Your task to perform on an android device: Open accessibility settings Image 0: 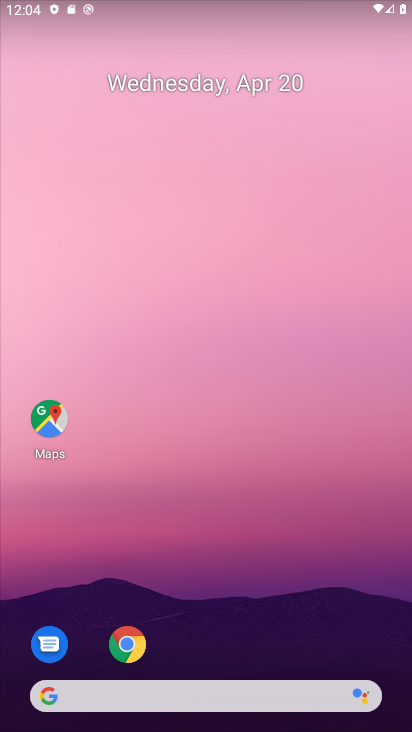
Step 0: drag from (261, 648) to (286, 0)
Your task to perform on an android device: Open accessibility settings Image 1: 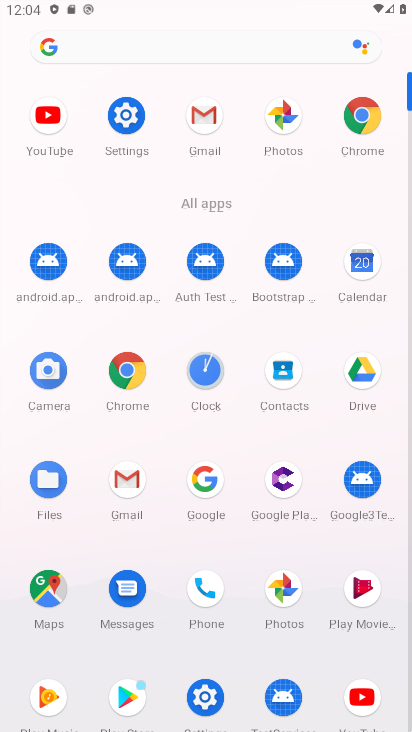
Step 1: click (131, 116)
Your task to perform on an android device: Open accessibility settings Image 2: 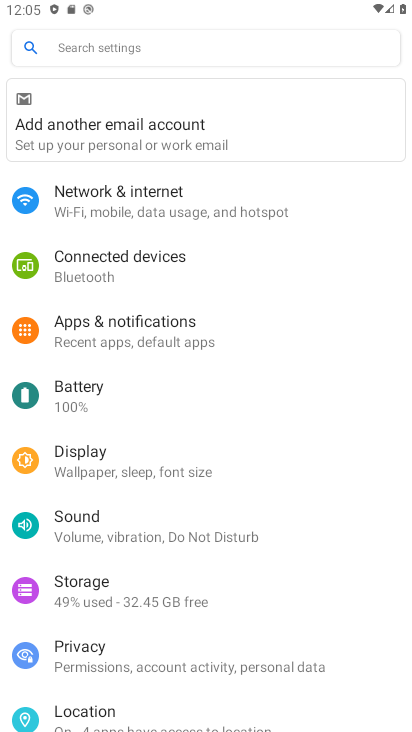
Step 2: drag from (264, 620) to (264, 198)
Your task to perform on an android device: Open accessibility settings Image 3: 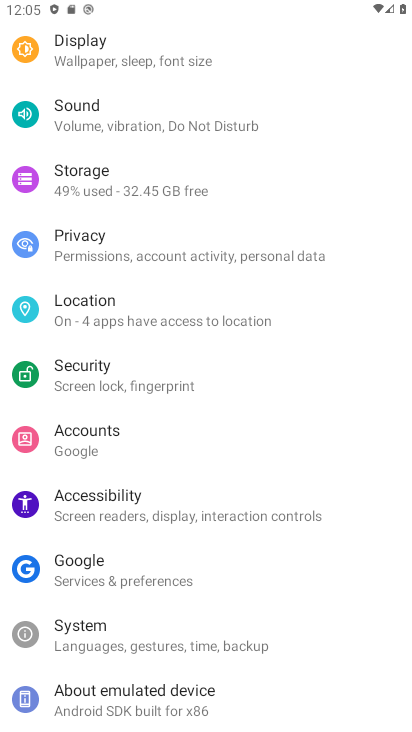
Step 3: click (168, 504)
Your task to perform on an android device: Open accessibility settings Image 4: 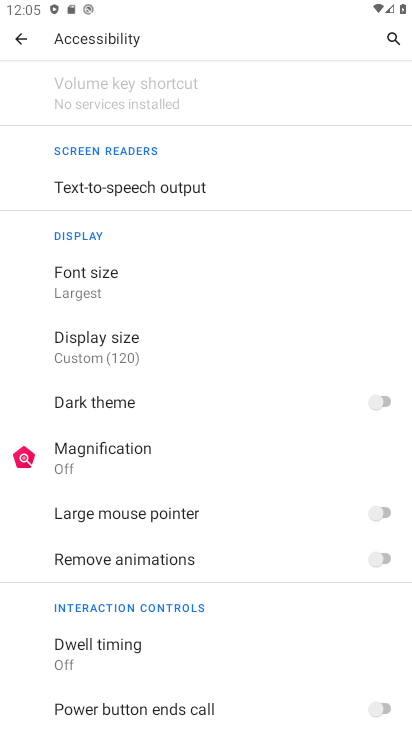
Step 4: task complete